Your task to perform on an android device: Open the calendar app, open the side menu, and click the "Day" option Image 0: 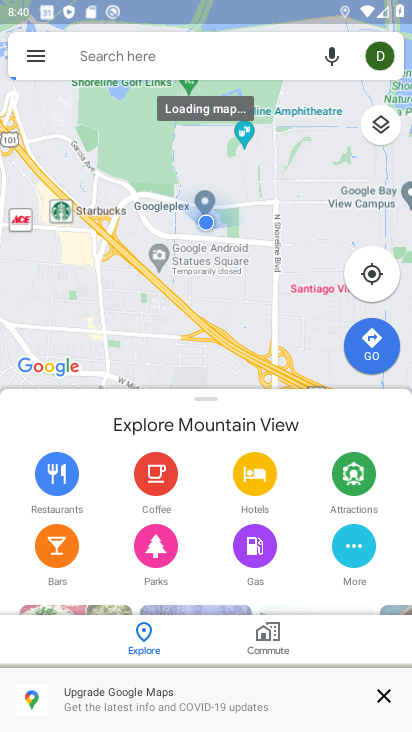
Step 0: drag from (209, 599) to (229, 133)
Your task to perform on an android device: Open the calendar app, open the side menu, and click the "Day" option Image 1: 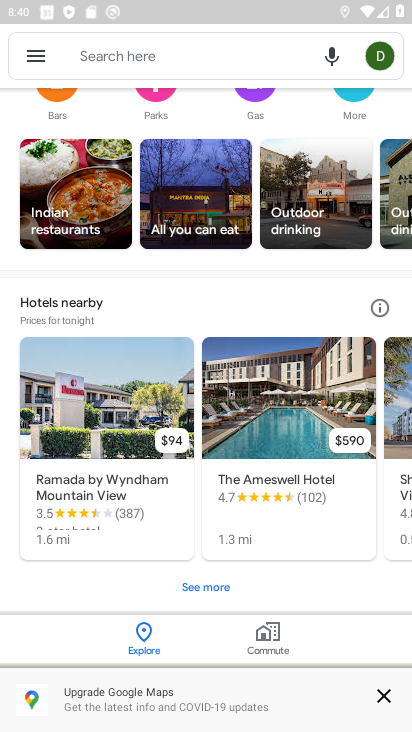
Step 1: press home button
Your task to perform on an android device: Open the calendar app, open the side menu, and click the "Day" option Image 2: 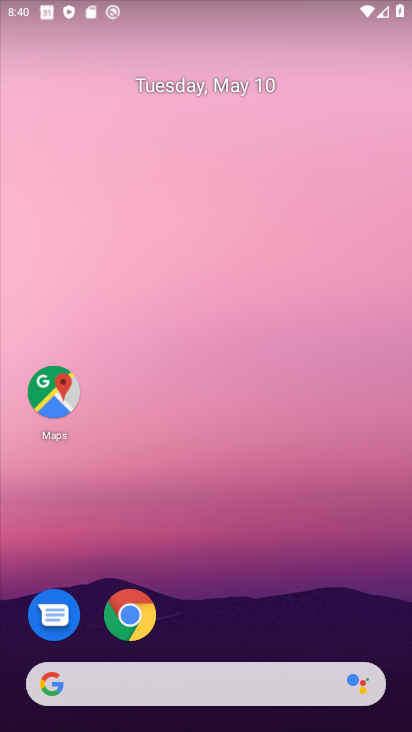
Step 2: drag from (187, 387) to (160, 111)
Your task to perform on an android device: Open the calendar app, open the side menu, and click the "Day" option Image 3: 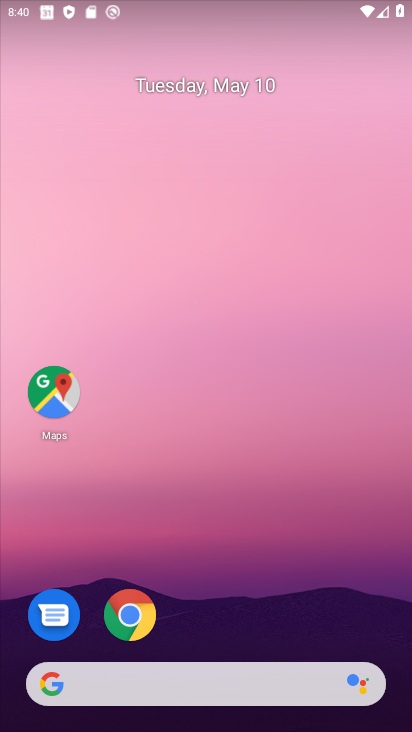
Step 3: drag from (211, 606) to (248, 105)
Your task to perform on an android device: Open the calendar app, open the side menu, and click the "Day" option Image 4: 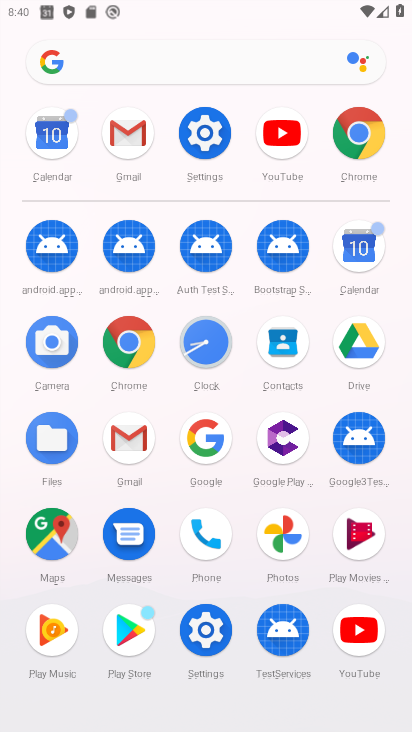
Step 4: click (353, 257)
Your task to perform on an android device: Open the calendar app, open the side menu, and click the "Day" option Image 5: 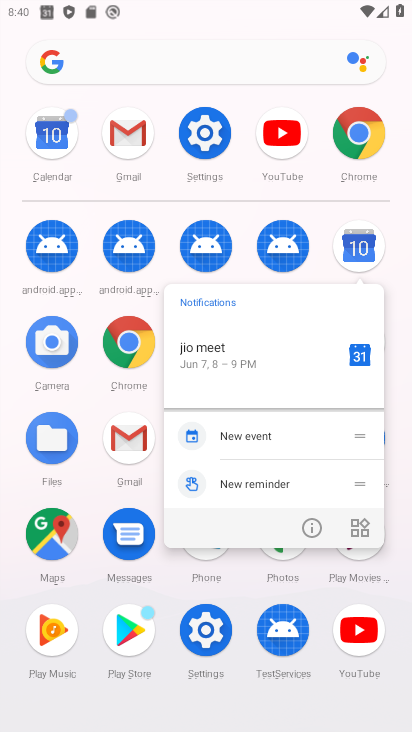
Step 5: click (315, 529)
Your task to perform on an android device: Open the calendar app, open the side menu, and click the "Day" option Image 6: 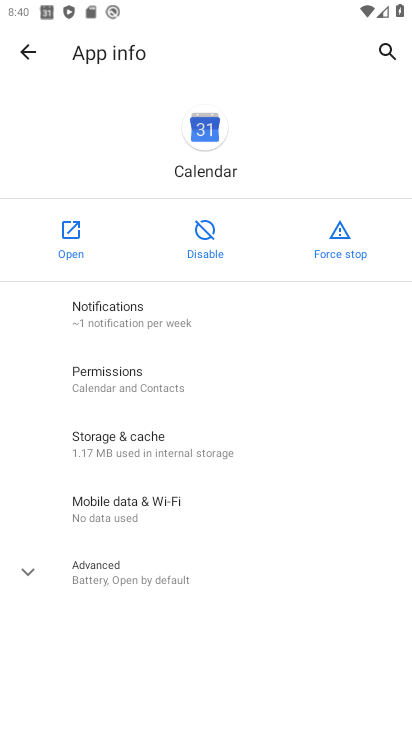
Step 6: click (64, 235)
Your task to perform on an android device: Open the calendar app, open the side menu, and click the "Day" option Image 7: 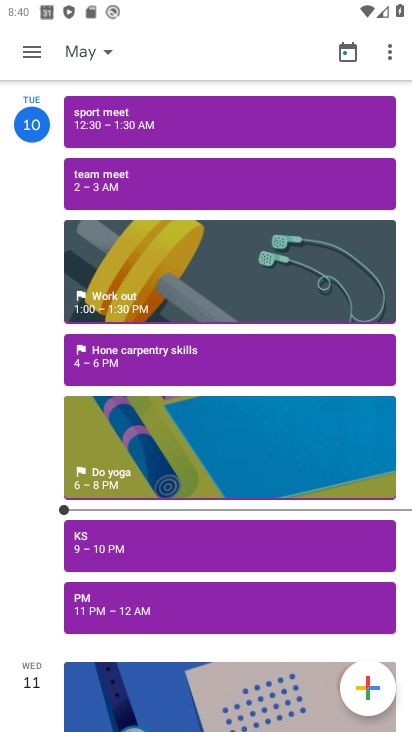
Step 7: click (80, 54)
Your task to perform on an android device: Open the calendar app, open the side menu, and click the "Day" option Image 8: 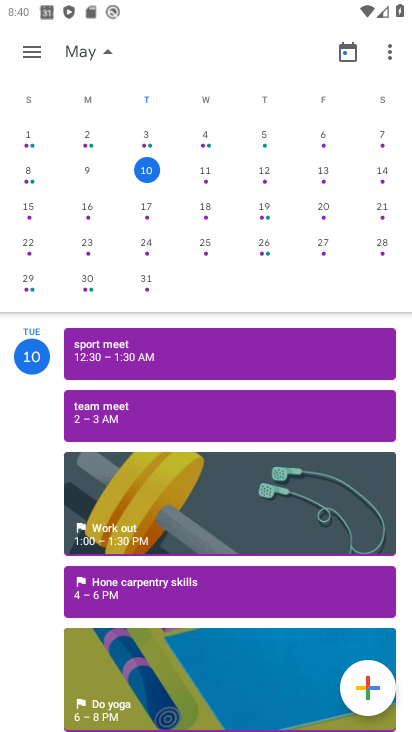
Step 8: click (80, 54)
Your task to perform on an android device: Open the calendar app, open the side menu, and click the "Day" option Image 9: 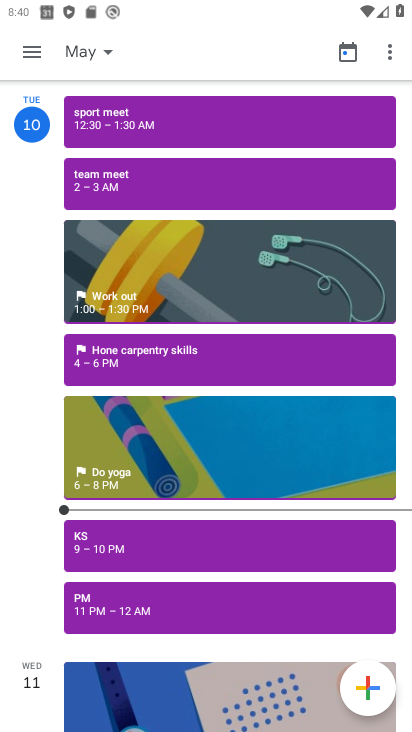
Step 9: click (40, 50)
Your task to perform on an android device: Open the calendar app, open the side menu, and click the "Day" option Image 10: 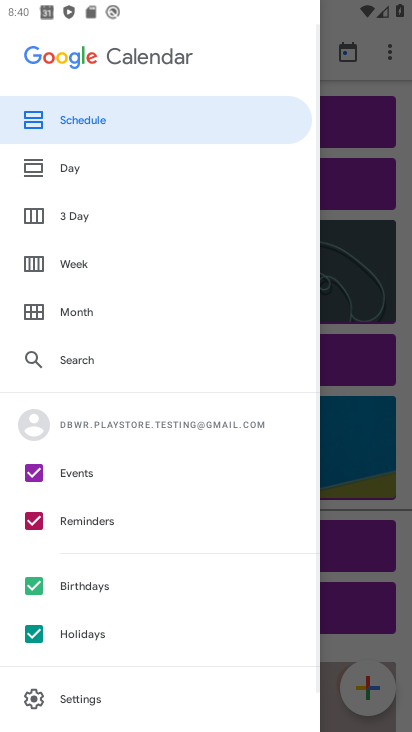
Step 10: click (77, 169)
Your task to perform on an android device: Open the calendar app, open the side menu, and click the "Day" option Image 11: 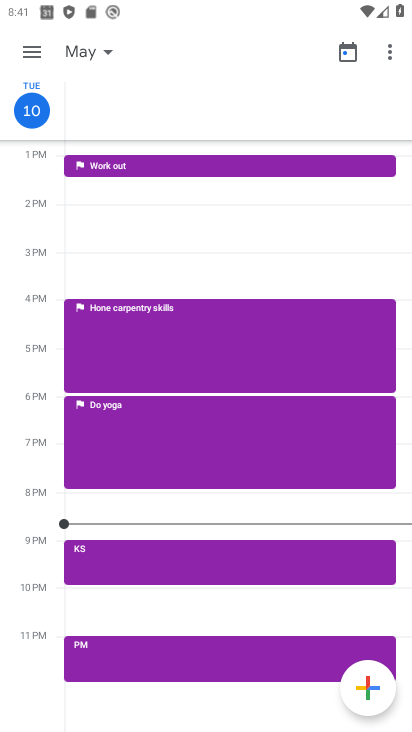
Step 11: task complete